Your task to perform on an android device: Open settings on Google Maps Image 0: 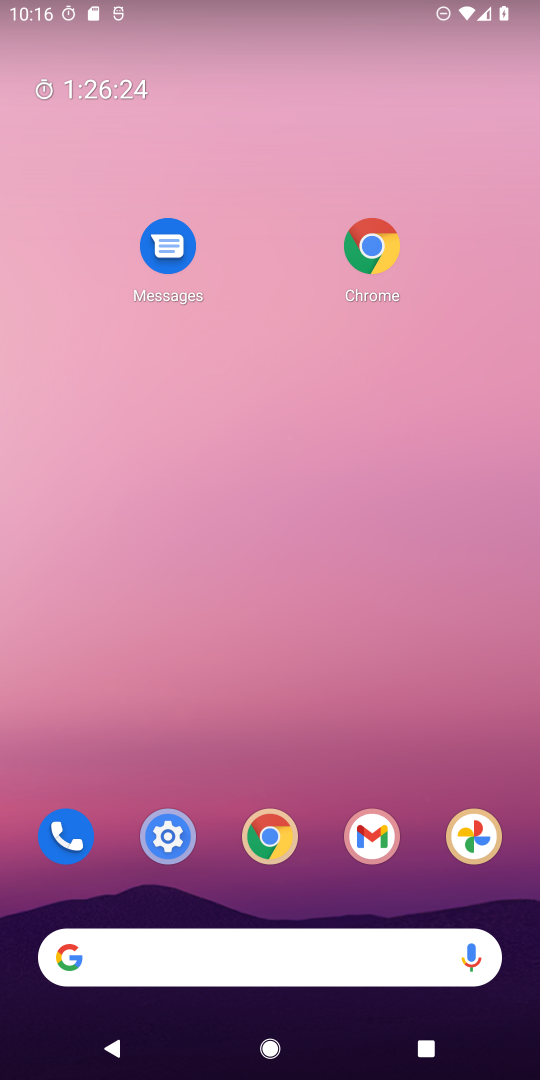
Step 0: drag from (307, 908) to (293, 445)
Your task to perform on an android device: Open settings on Google Maps Image 1: 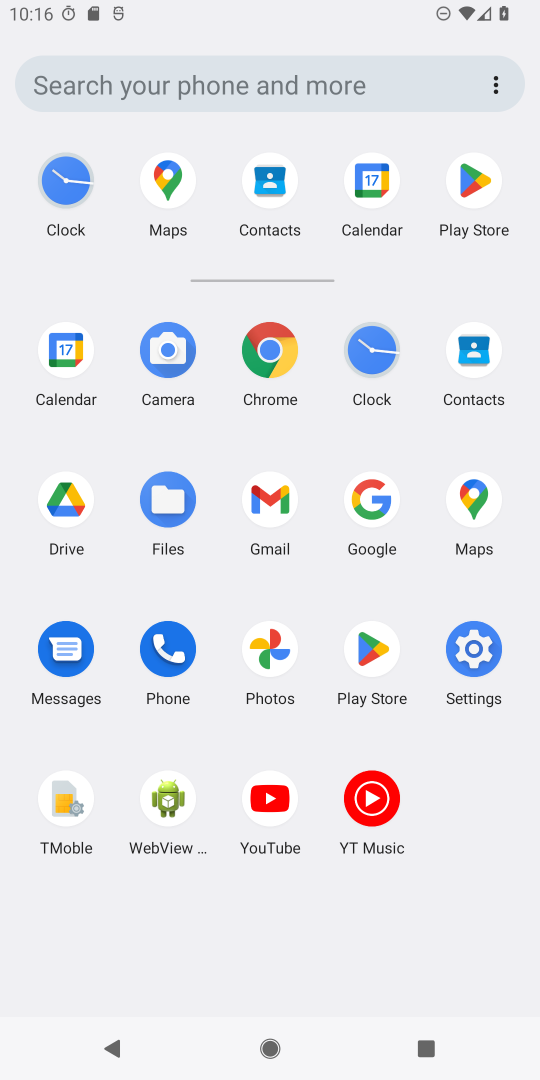
Step 1: click (469, 491)
Your task to perform on an android device: Open settings on Google Maps Image 2: 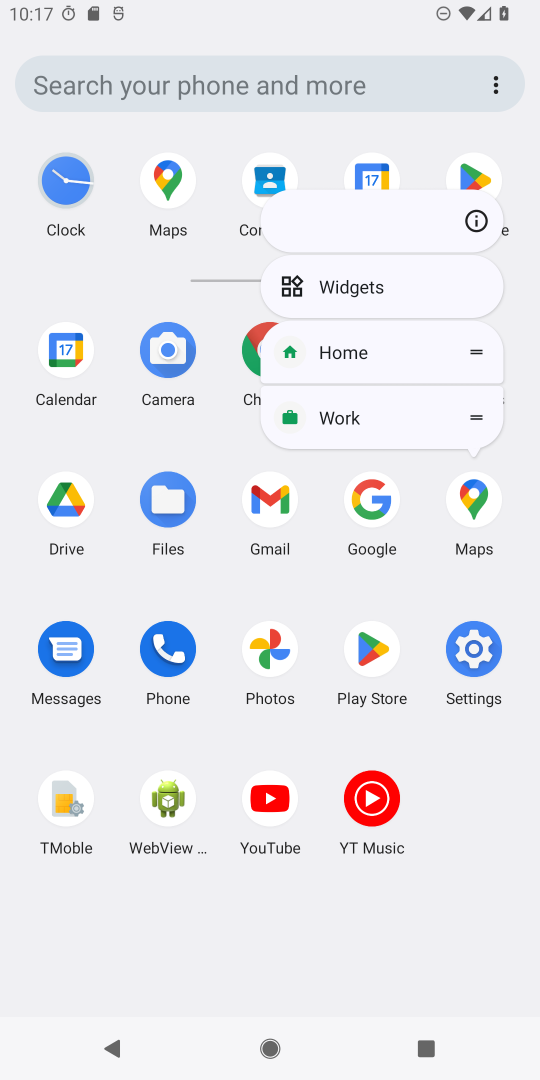
Step 2: click (469, 491)
Your task to perform on an android device: Open settings on Google Maps Image 3: 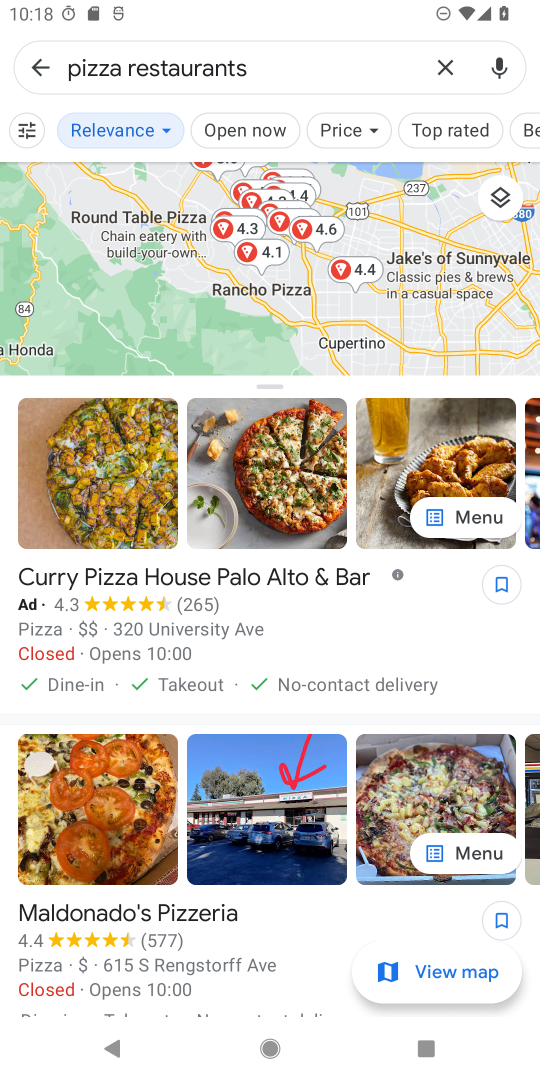
Step 3: click (445, 70)
Your task to perform on an android device: Open settings on Google Maps Image 4: 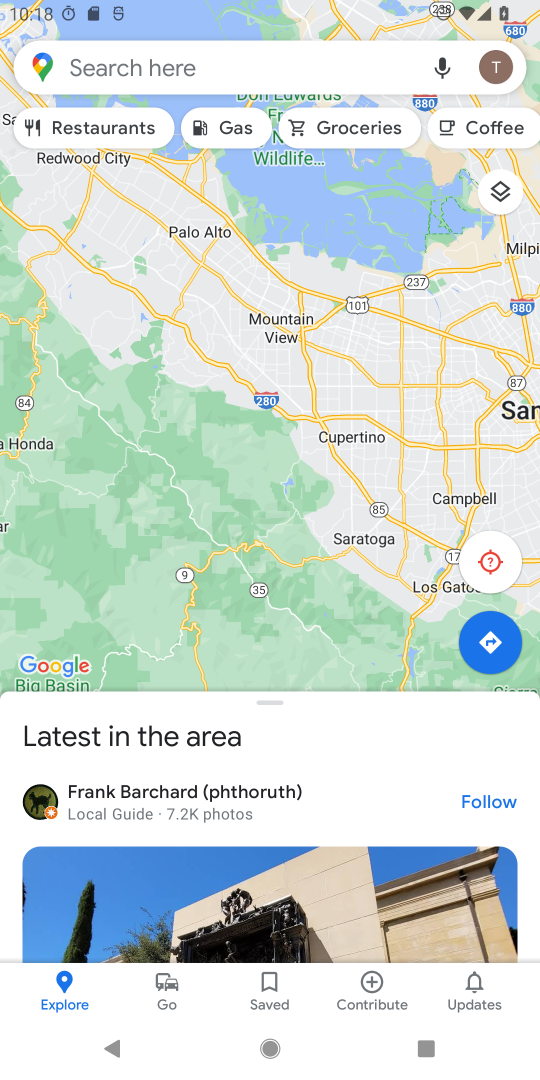
Step 4: click (494, 67)
Your task to perform on an android device: Open settings on Google Maps Image 5: 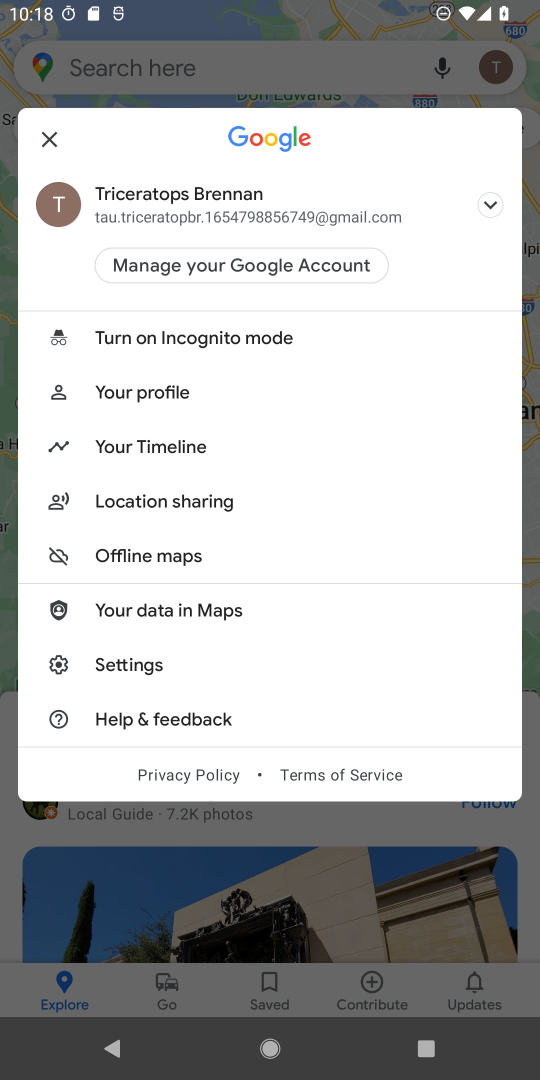
Step 5: click (134, 666)
Your task to perform on an android device: Open settings on Google Maps Image 6: 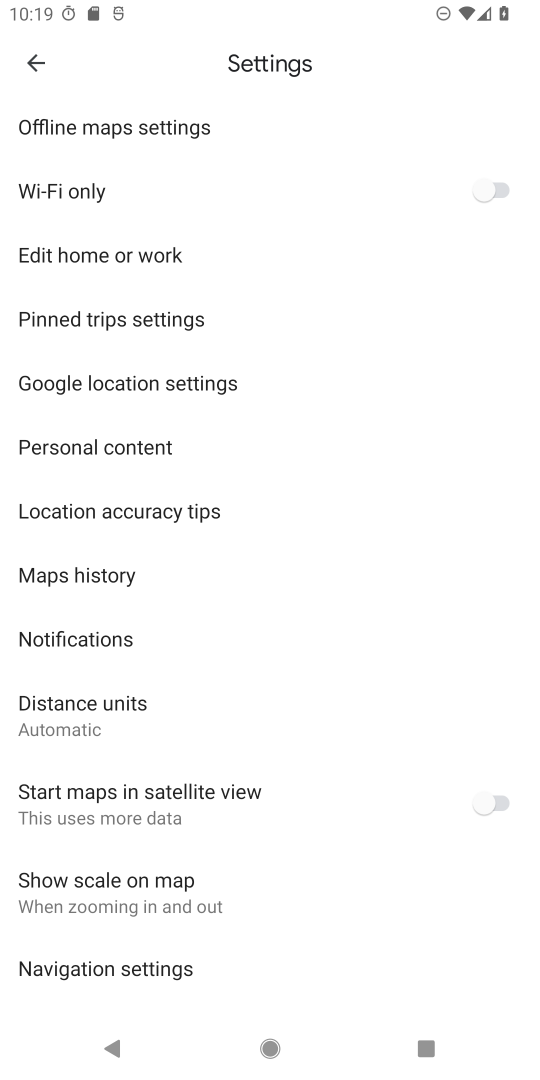
Step 6: task complete